Your task to perform on an android device: Clear the shopping cart on amazon.com. Image 0: 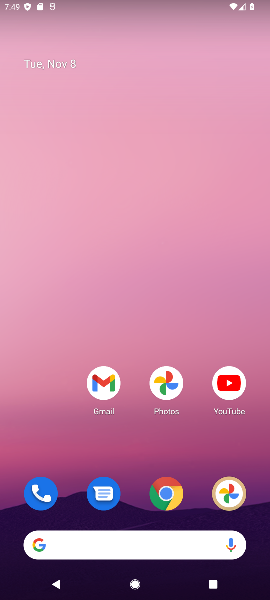
Step 0: click (169, 496)
Your task to perform on an android device: Clear the shopping cart on amazon.com. Image 1: 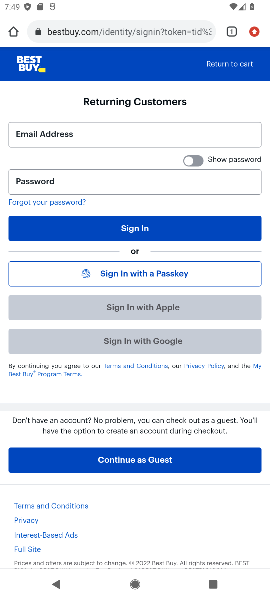
Step 1: click (96, 34)
Your task to perform on an android device: Clear the shopping cart on amazon.com. Image 2: 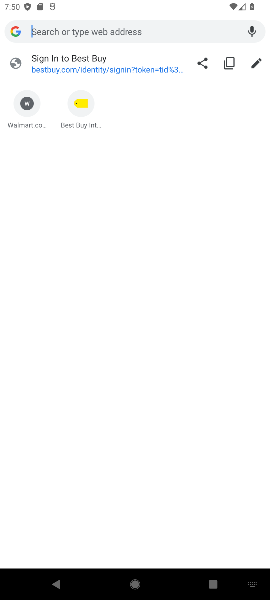
Step 2: type "amazon.com"
Your task to perform on an android device: Clear the shopping cart on amazon.com. Image 3: 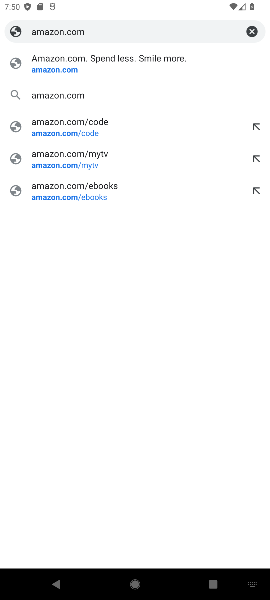
Step 3: click (53, 74)
Your task to perform on an android device: Clear the shopping cart on amazon.com. Image 4: 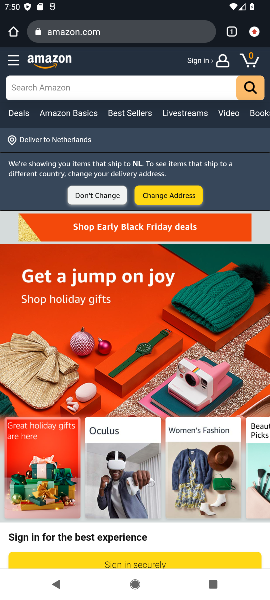
Step 4: click (248, 63)
Your task to perform on an android device: Clear the shopping cart on amazon.com. Image 5: 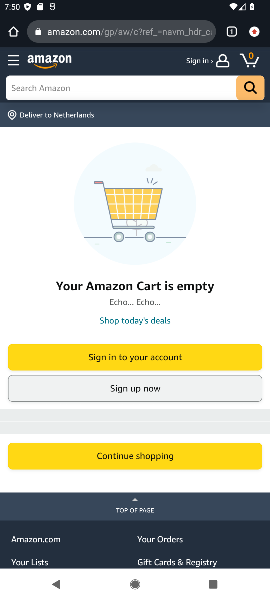
Step 5: task complete